Your task to perform on an android device: Show me the alarms in the clock app Image 0: 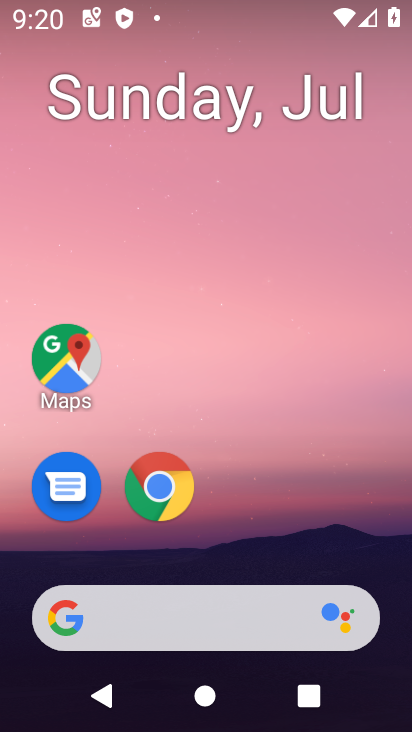
Step 0: press home button
Your task to perform on an android device: Show me the alarms in the clock app Image 1: 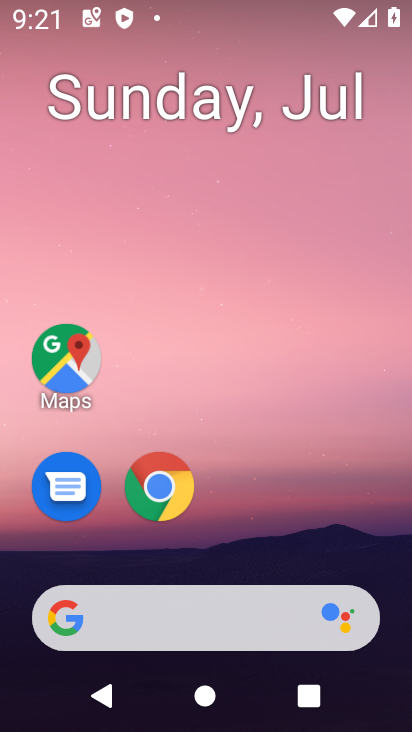
Step 1: drag from (371, 517) to (379, 93)
Your task to perform on an android device: Show me the alarms in the clock app Image 2: 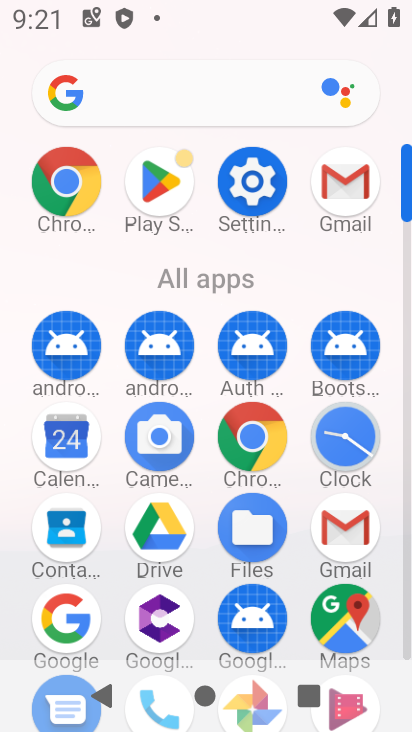
Step 2: click (351, 441)
Your task to perform on an android device: Show me the alarms in the clock app Image 3: 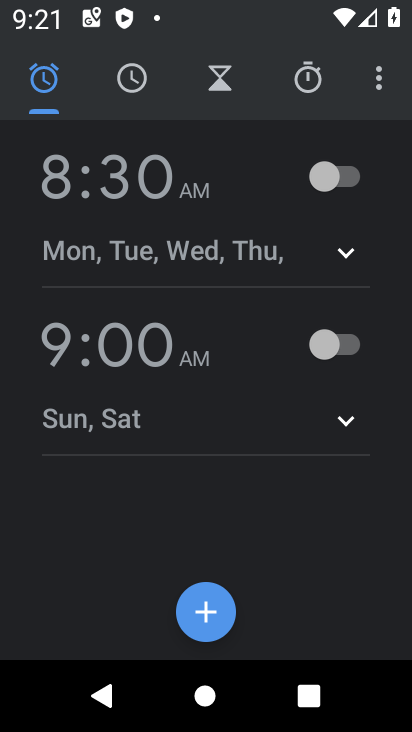
Step 3: task complete